Your task to perform on an android device: Open calendar and show me the fourth week of next month Image 0: 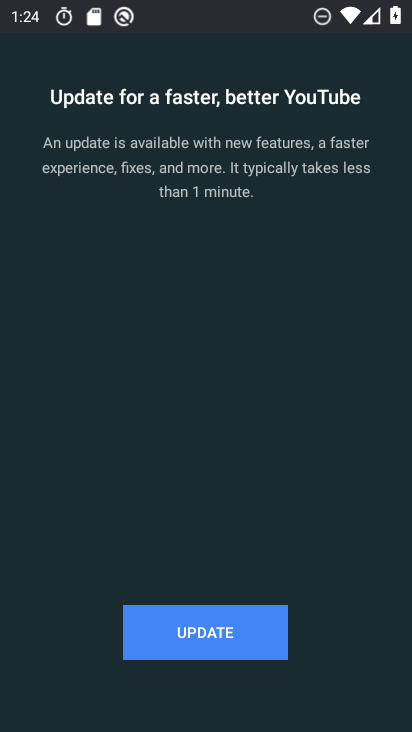
Step 0: press home button
Your task to perform on an android device: Open calendar and show me the fourth week of next month Image 1: 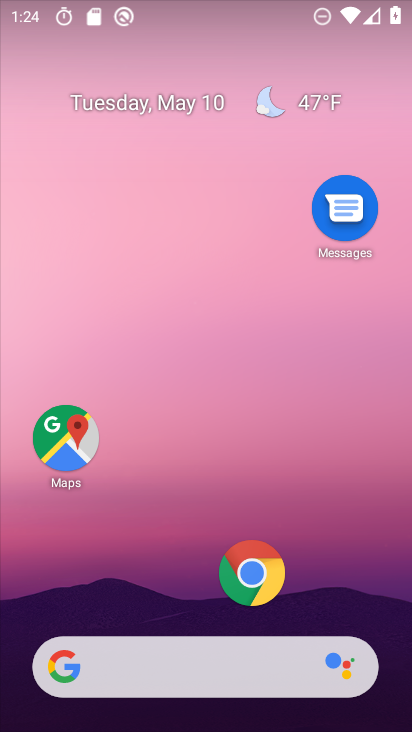
Step 1: drag from (214, 617) to (250, 280)
Your task to perform on an android device: Open calendar and show me the fourth week of next month Image 2: 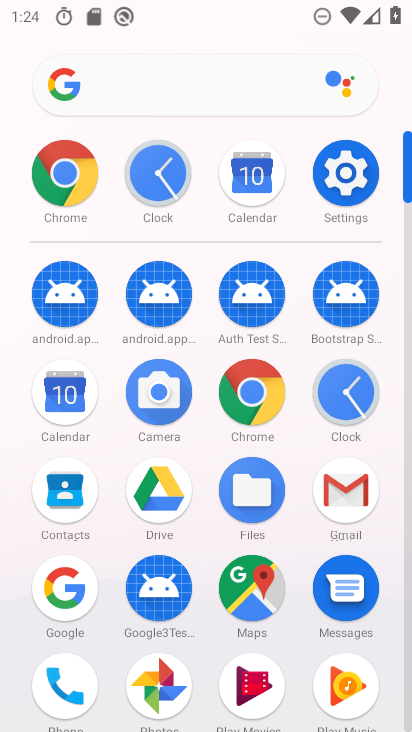
Step 2: click (60, 388)
Your task to perform on an android device: Open calendar and show me the fourth week of next month Image 3: 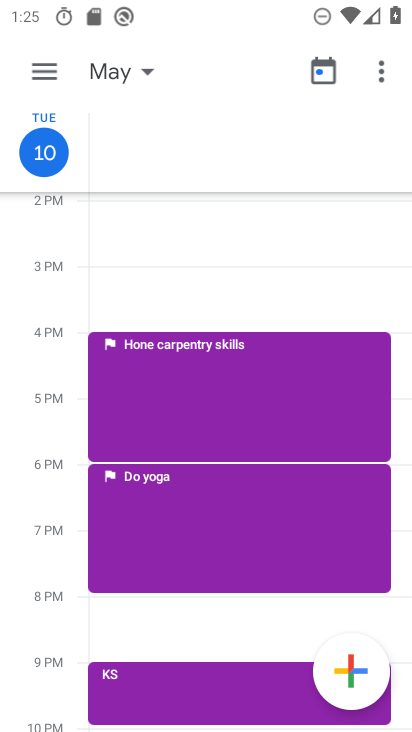
Step 3: drag from (185, 546) to (194, 364)
Your task to perform on an android device: Open calendar and show me the fourth week of next month Image 4: 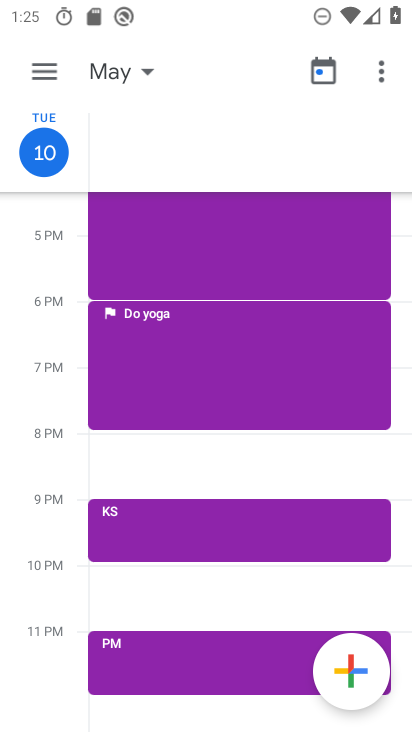
Step 4: click (111, 59)
Your task to perform on an android device: Open calendar and show me the fourth week of next month Image 5: 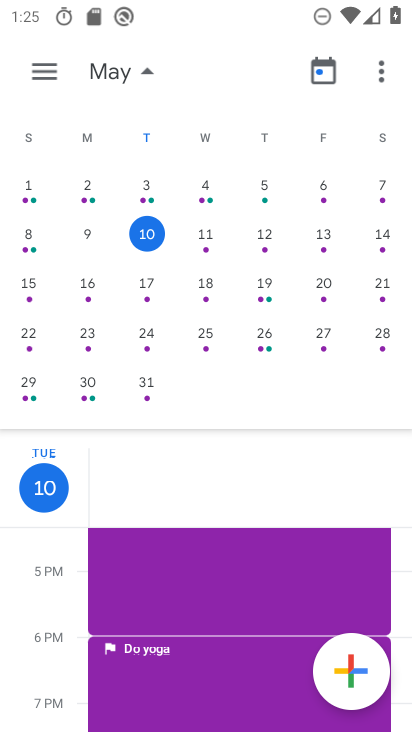
Step 5: drag from (381, 243) to (64, 317)
Your task to perform on an android device: Open calendar and show me the fourth week of next month Image 6: 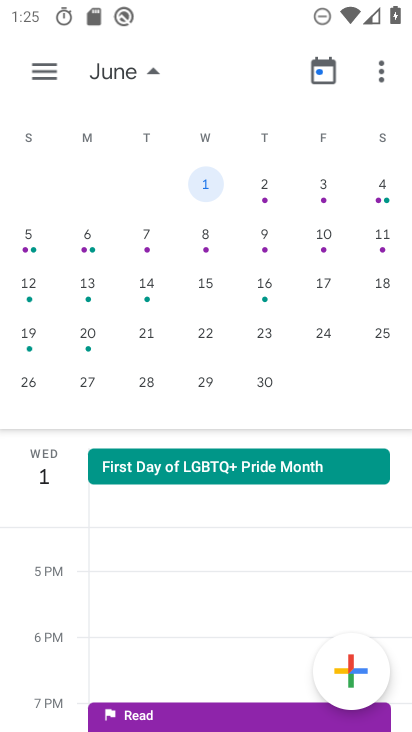
Step 6: click (248, 350)
Your task to perform on an android device: Open calendar and show me the fourth week of next month Image 7: 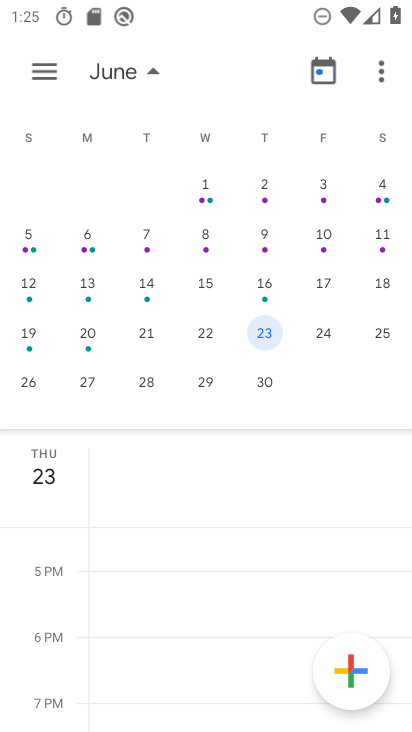
Step 7: task complete